Your task to perform on an android device: allow cookies in the chrome app Image 0: 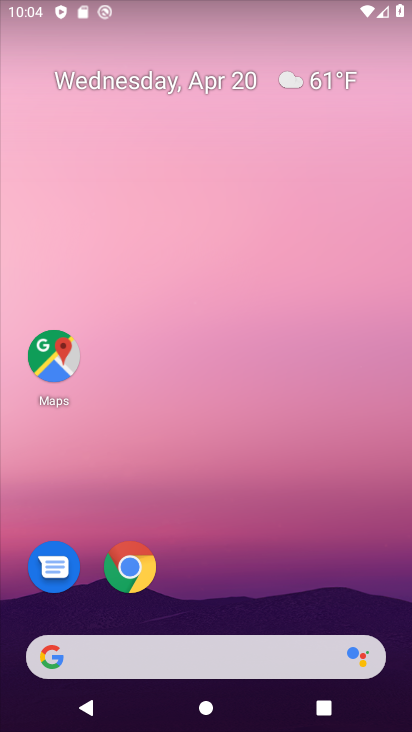
Step 0: click (133, 582)
Your task to perform on an android device: allow cookies in the chrome app Image 1: 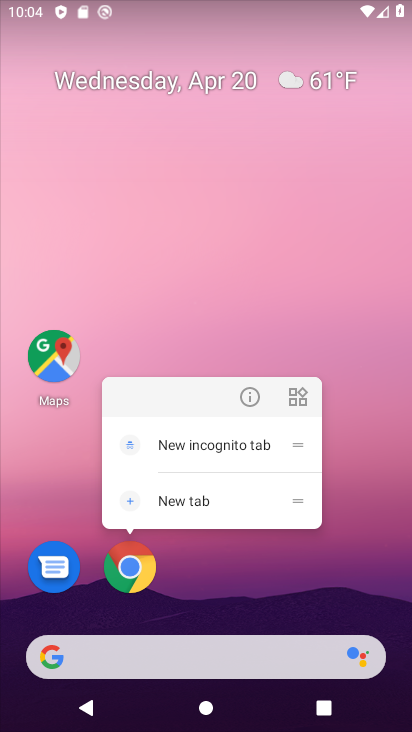
Step 1: click (123, 575)
Your task to perform on an android device: allow cookies in the chrome app Image 2: 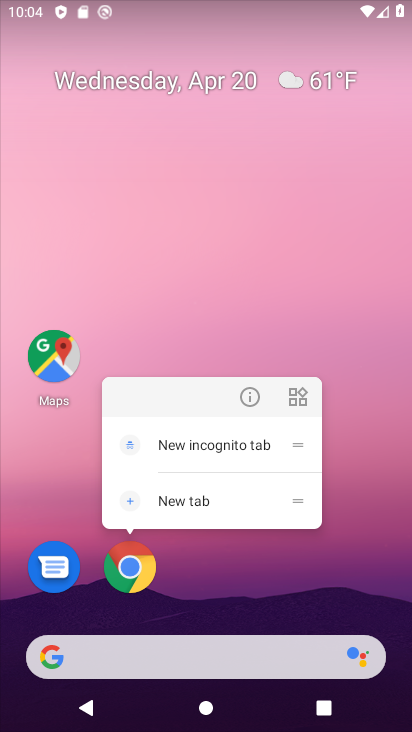
Step 2: click (124, 574)
Your task to perform on an android device: allow cookies in the chrome app Image 3: 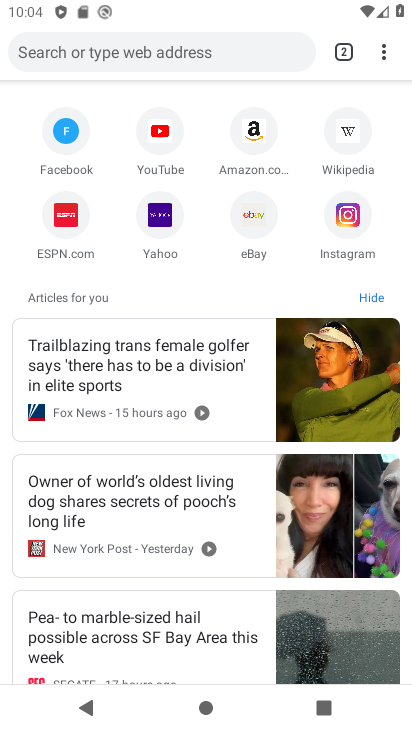
Step 3: click (380, 47)
Your task to perform on an android device: allow cookies in the chrome app Image 4: 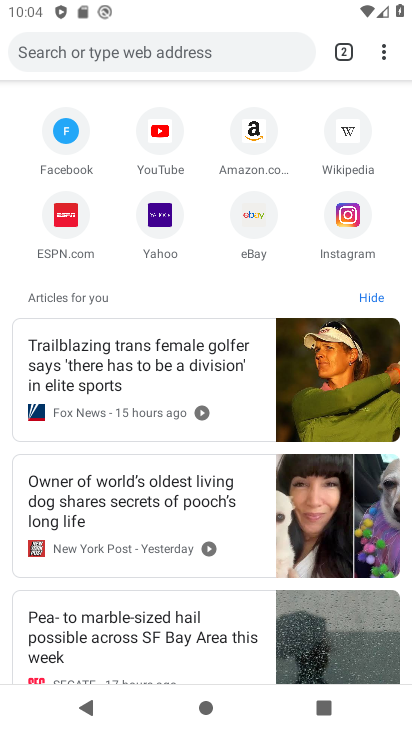
Step 4: drag from (382, 45) to (220, 488)
Your task to perform on an android device: allow cookies in the chrome app Image 5: 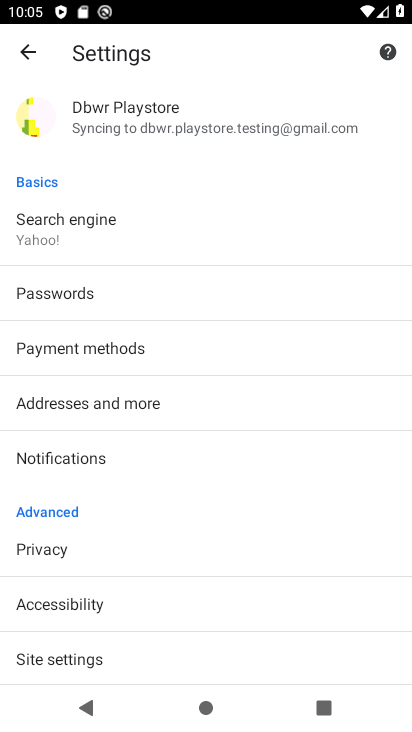
Step 5: click (119, 656)
Your task to perform on an android device: allow cookies in the chrome app Image 6: 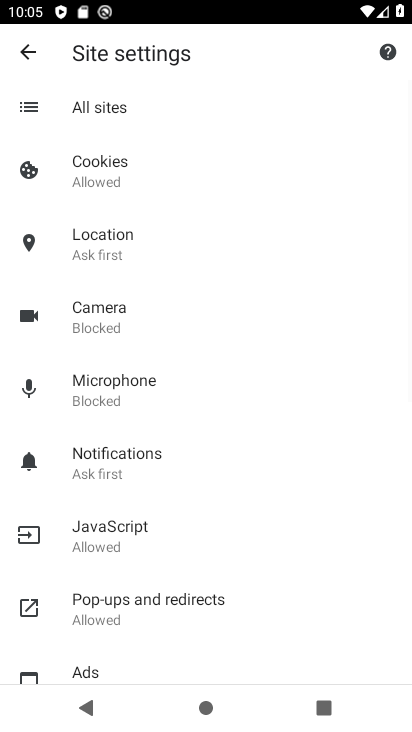
Step 6: click (121, 175)
Your task to perform on an android device: allow cookies in the chrome app Image 7: 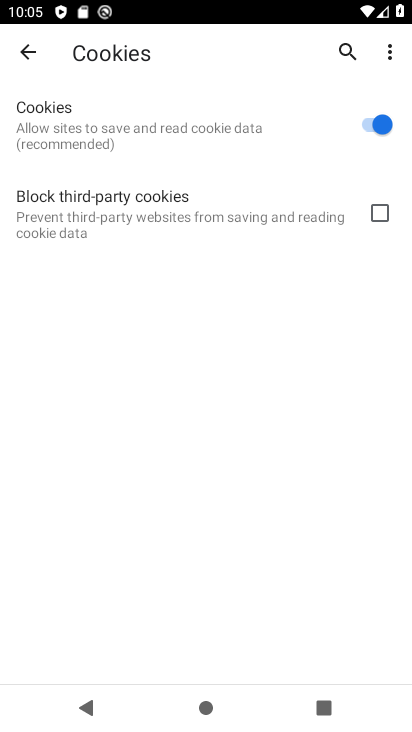
Step 7: task complete